Your task to perform on an android device: delete a single message in the gmail app Image 0: 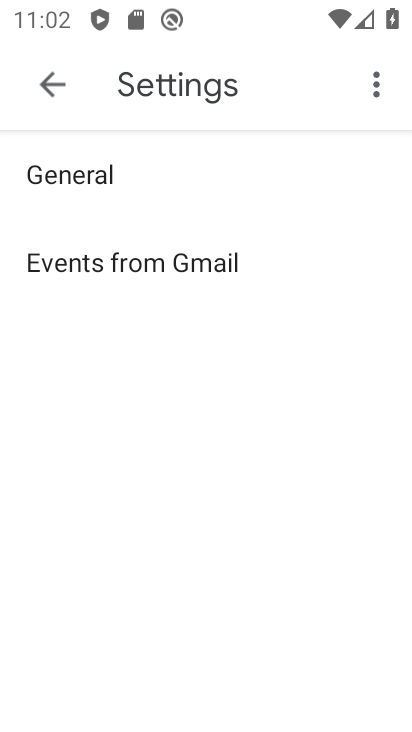
Step 0: drag from (300, 536) to (312, 221)
Your task to perform on an android device: delete a single message in the gmail app Image 1: 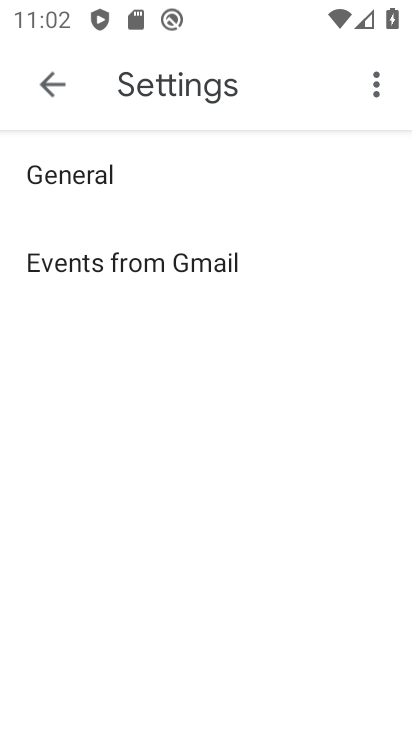
Step 1: press home button
Your task to perform on an android device: delete a single message in the gmail app Image 2: 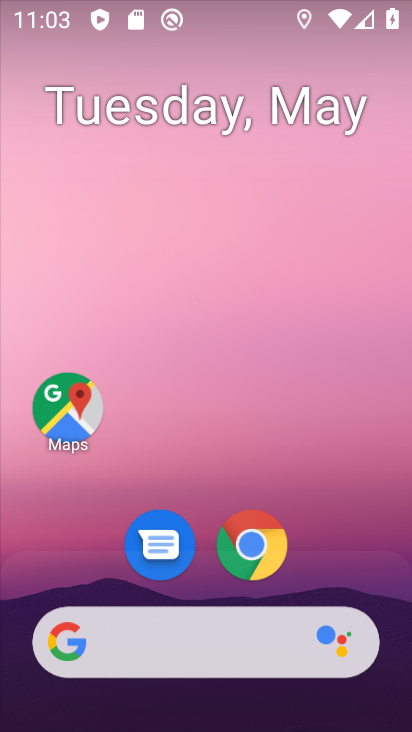
Step 2: drag from (355, 563) to (311, 187)
Your task to perform on an android device: delete a single message in the gmail app Image 3: 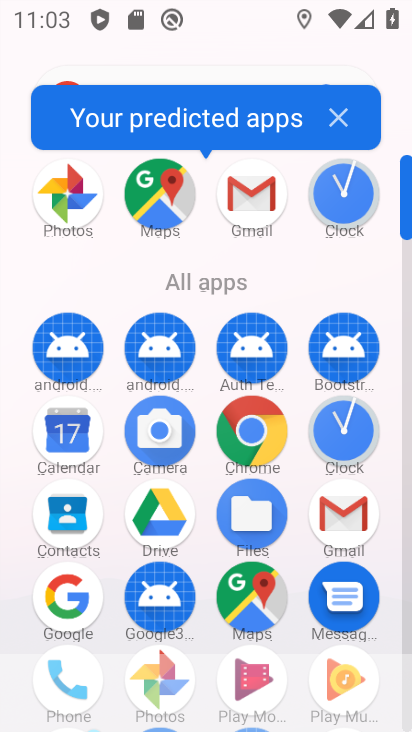
Step 3: click (323, 517)
Your task to perform on an android device: delete a single message in the gmail app Image 4: 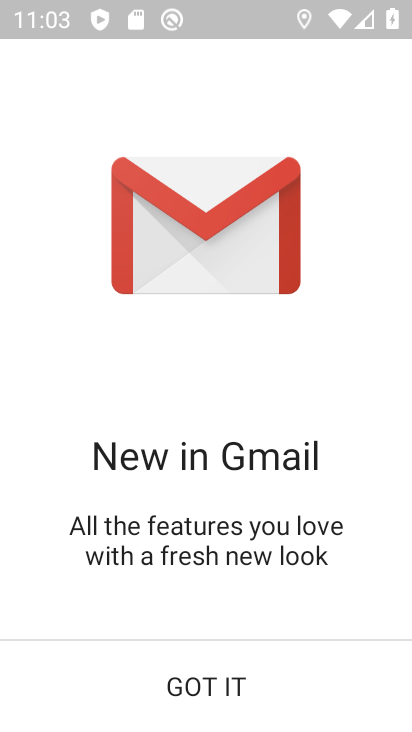
Step 4: click (226, 671)
Your task to perform on an android device: delete a single message in the gmail app Image 5: 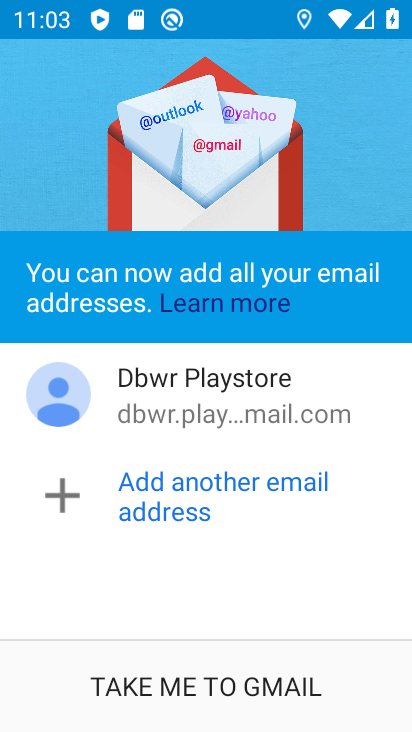
Step 5: click (226, 669)
Your task to perform on an android device: delete a single message in the gmail app Image 6: 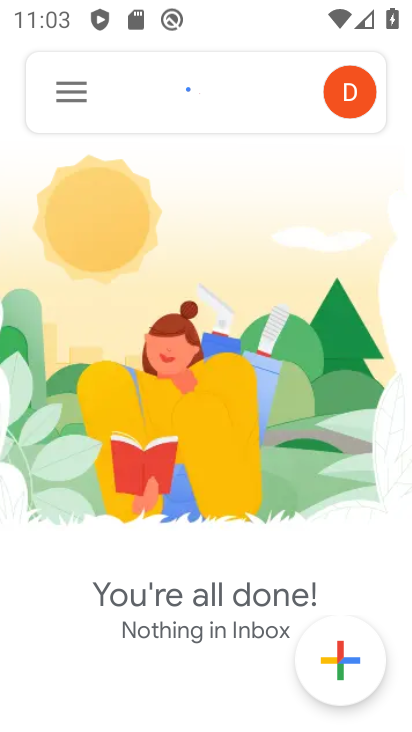
Step 6: click (92, 84)
Your task to perform on an android device: delete a single message in the gmail app Image 7: 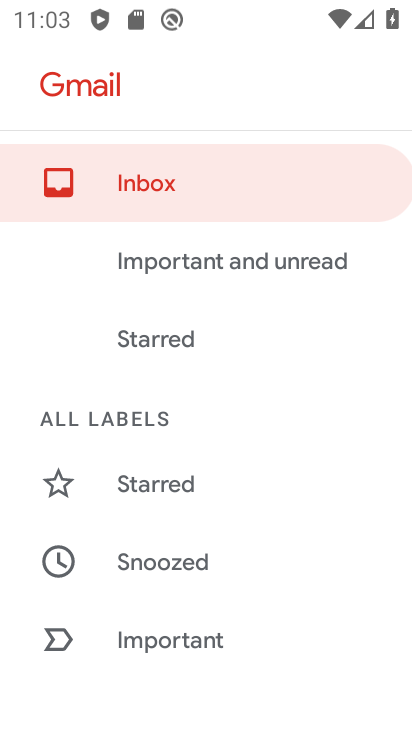
Step 7: task complete